Your task to perform on an android device: Is it going to rain today? Image 0: 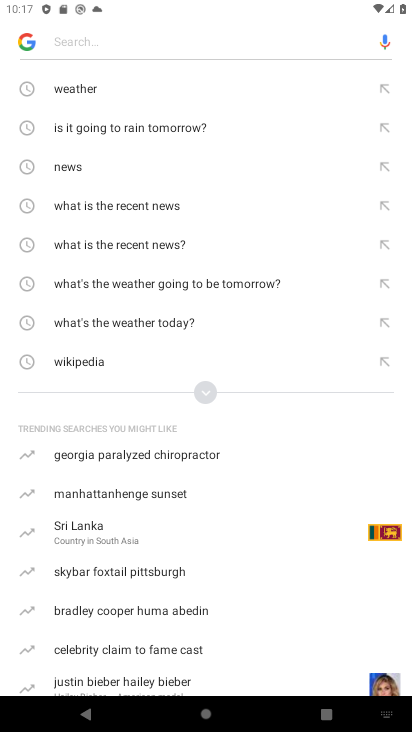
Step 0: type "Is it going to rain today?"
Your task to perform on an android device: Is it going to rain today? Image 1: 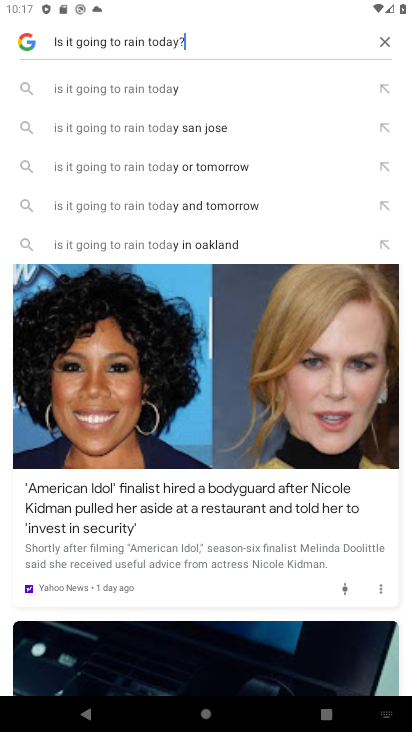
Step 1: type ""
Your task to perform on an android device: Is it going to rain today? Image 2: 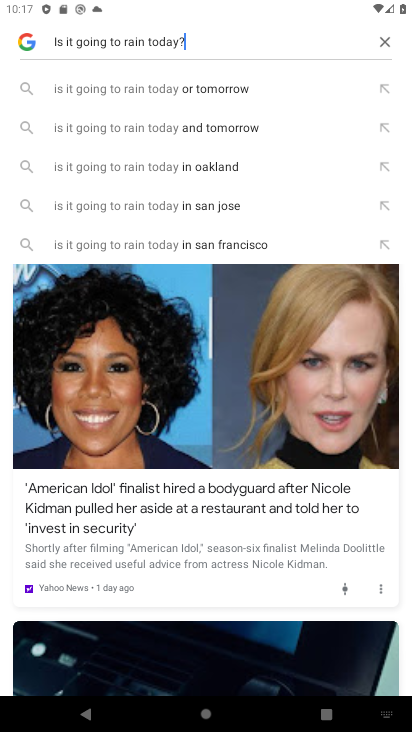
Step 2: press enter
Your task to perform on an android device: Is it going to rain today? Image 3: 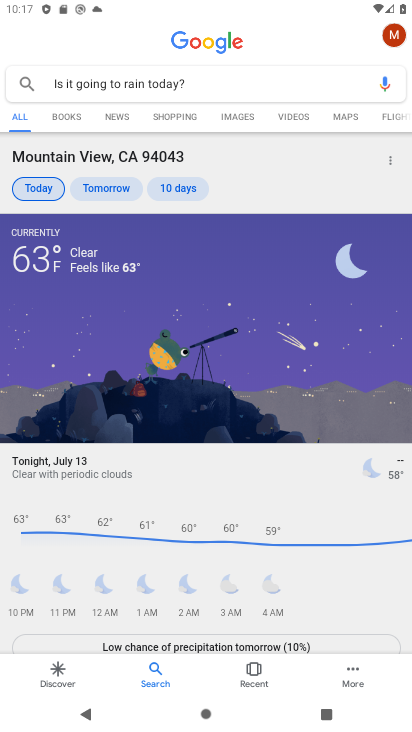
Step 3: task complete